Your task to perform on an android device: empty trash in google photos Image 0: 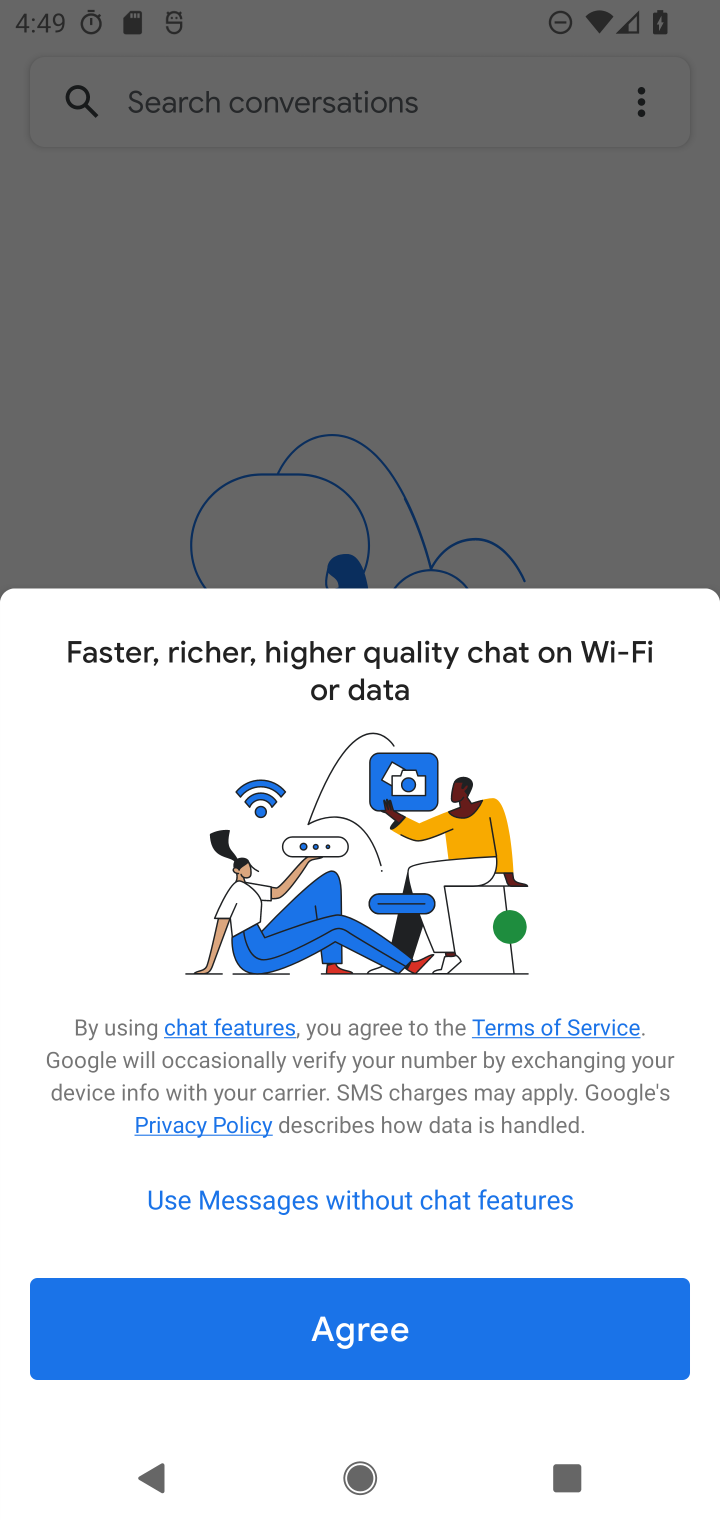
Step 0: press home button
Your task to perform on an android device: empty trash in google photos Image 1: 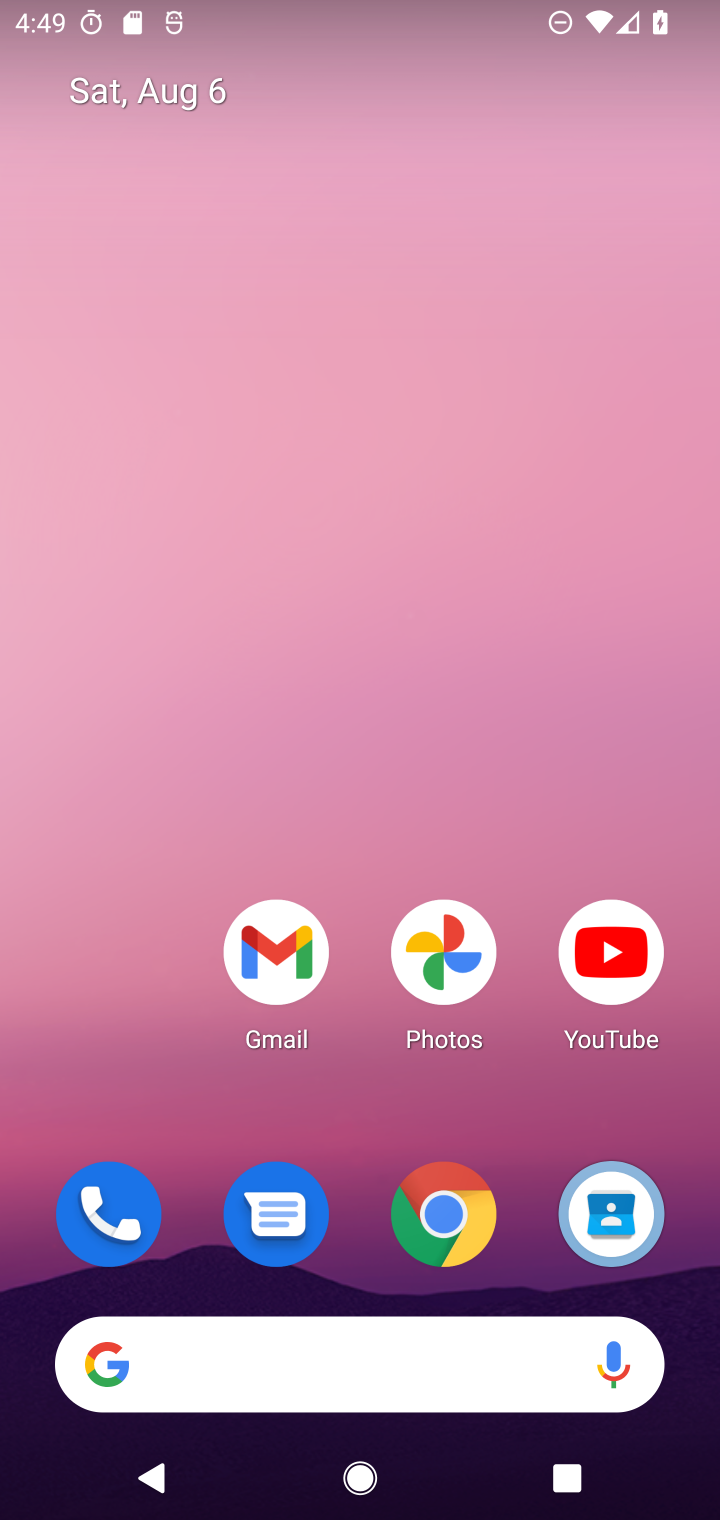
Step 1: drag from (361, 1228) to (378, 71)
Your task to perform on an android device: empty trash in google photos Image 2: 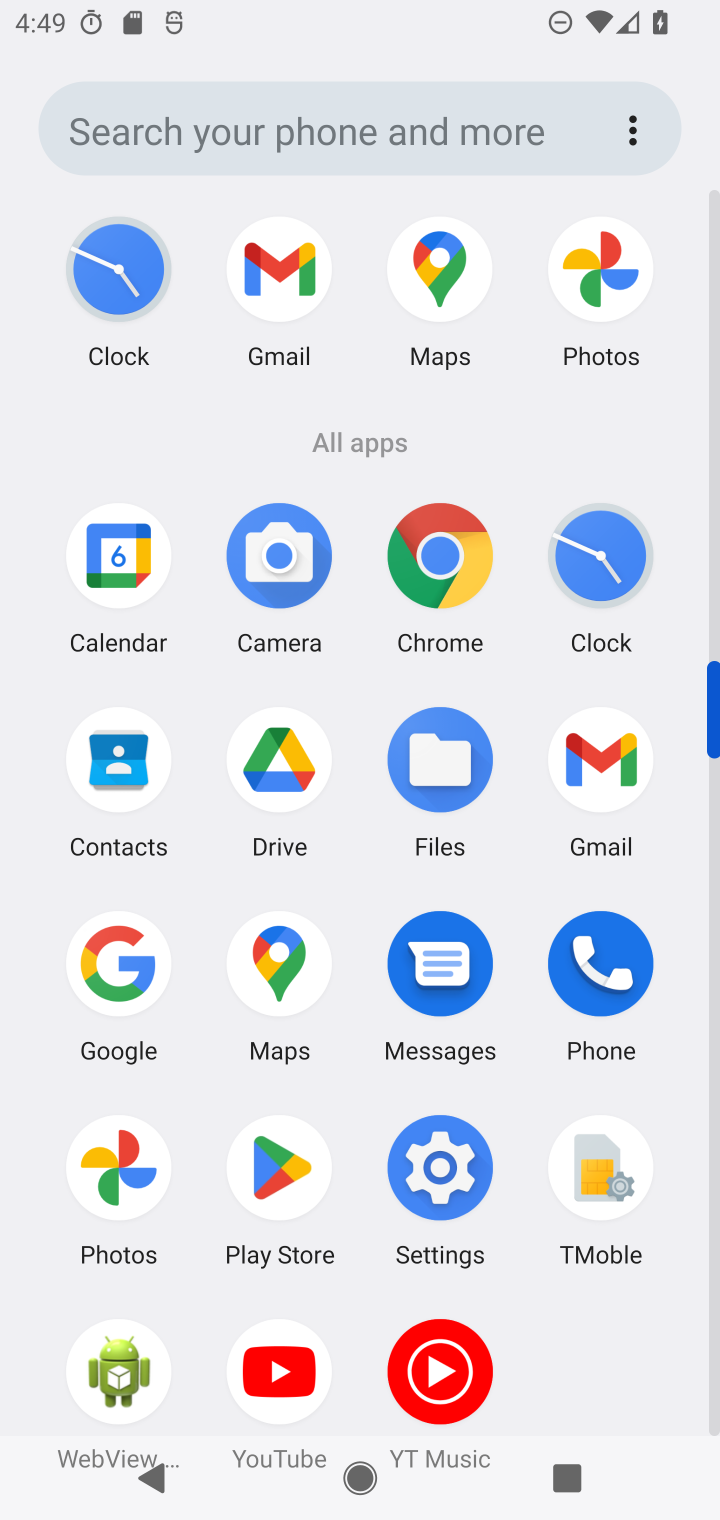
Step 2: click (113, 1209)
Your task to perform on an android device: empty trash in google photos Image 3: 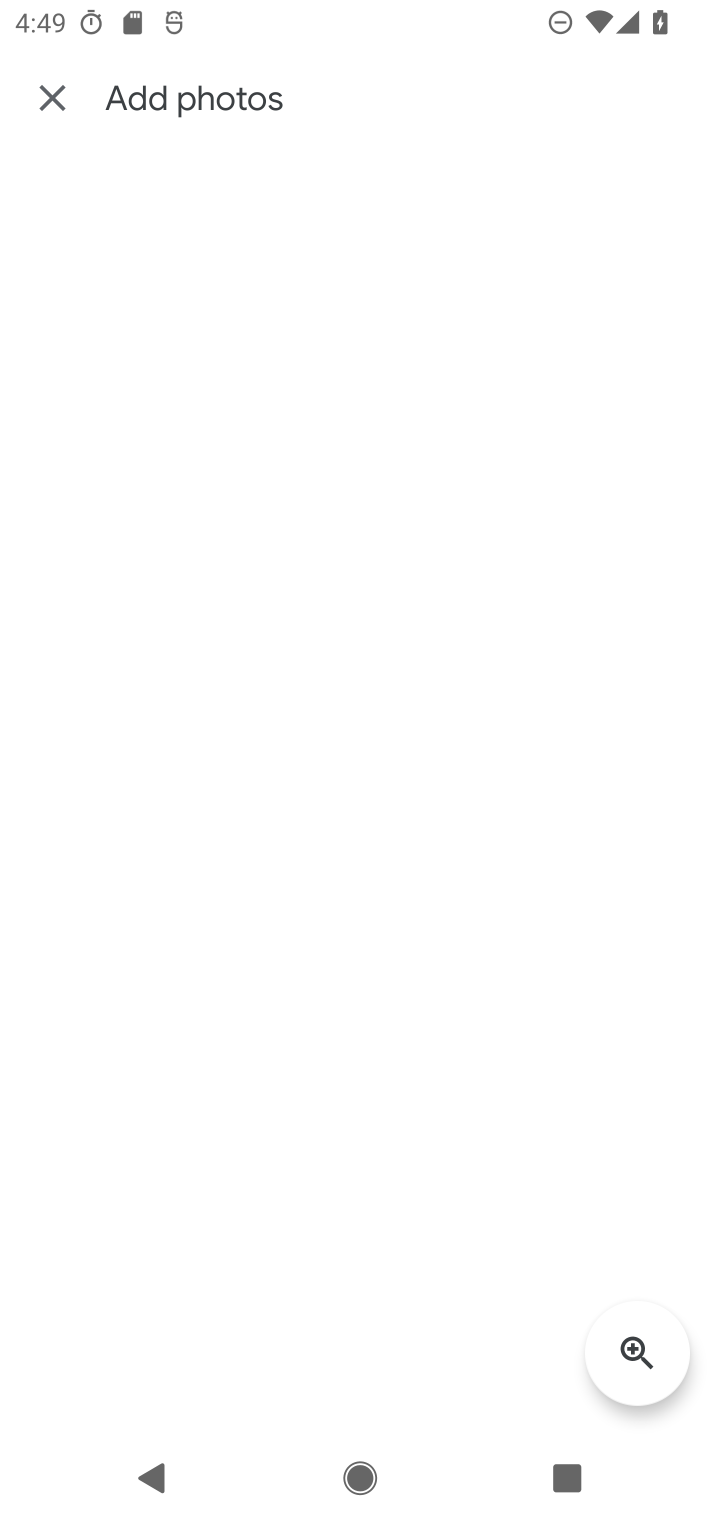
Step 3: click (67, 99)
Your task to perform on an android device: empty trash in google photos Image 4: 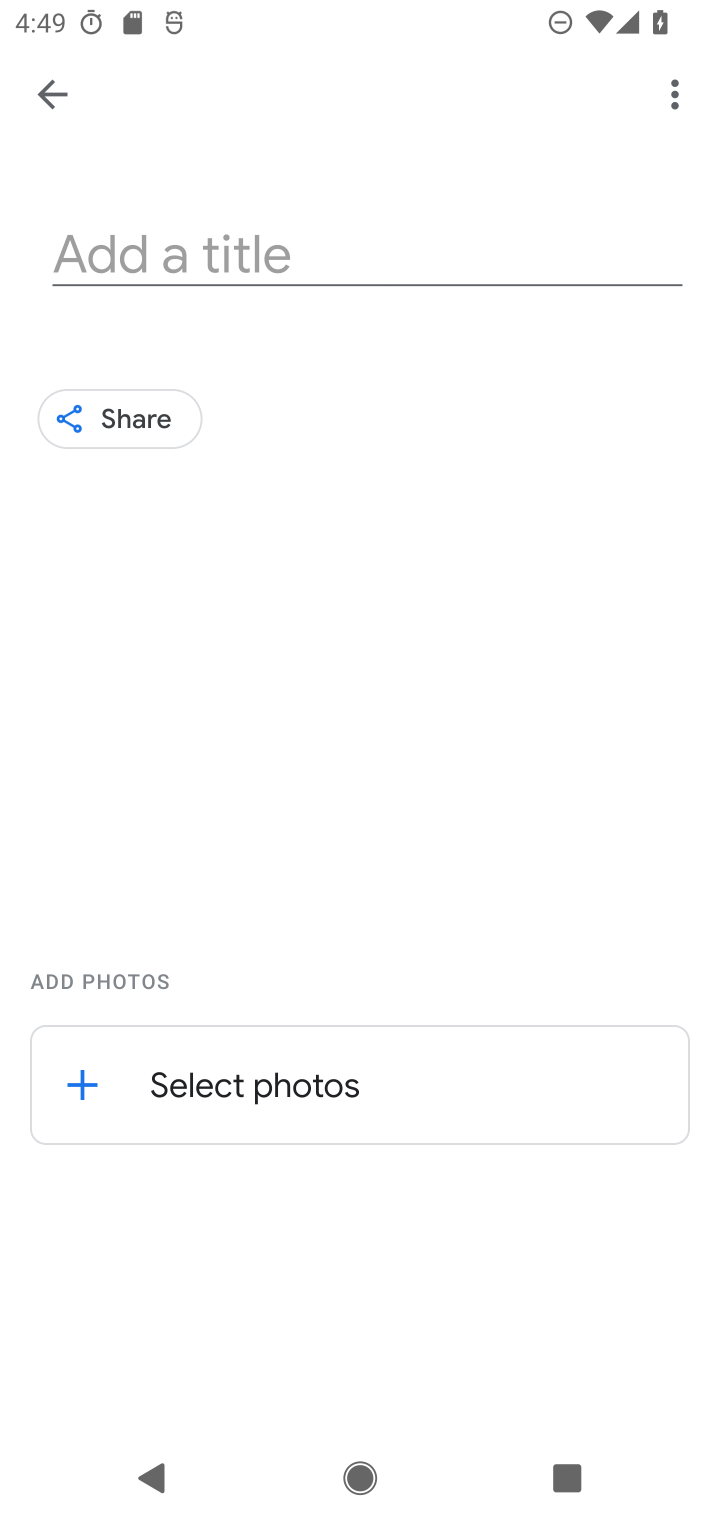
Step 4: click (41, 99)
Your task to perform on an android device: empty trash in google photos Image 5: 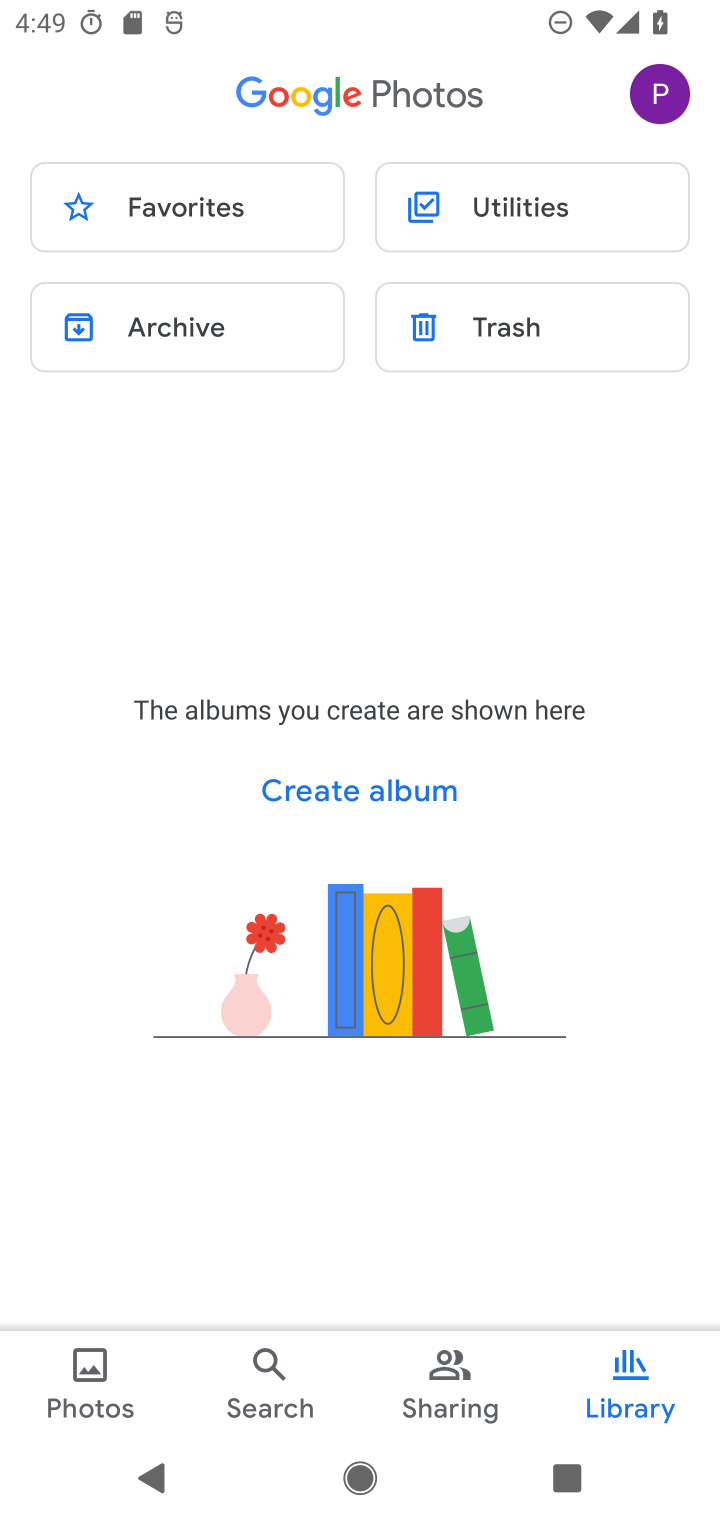
Step 5: click (554, 332)
Your task to perform on an android device: empty trash in google photos Image 6: 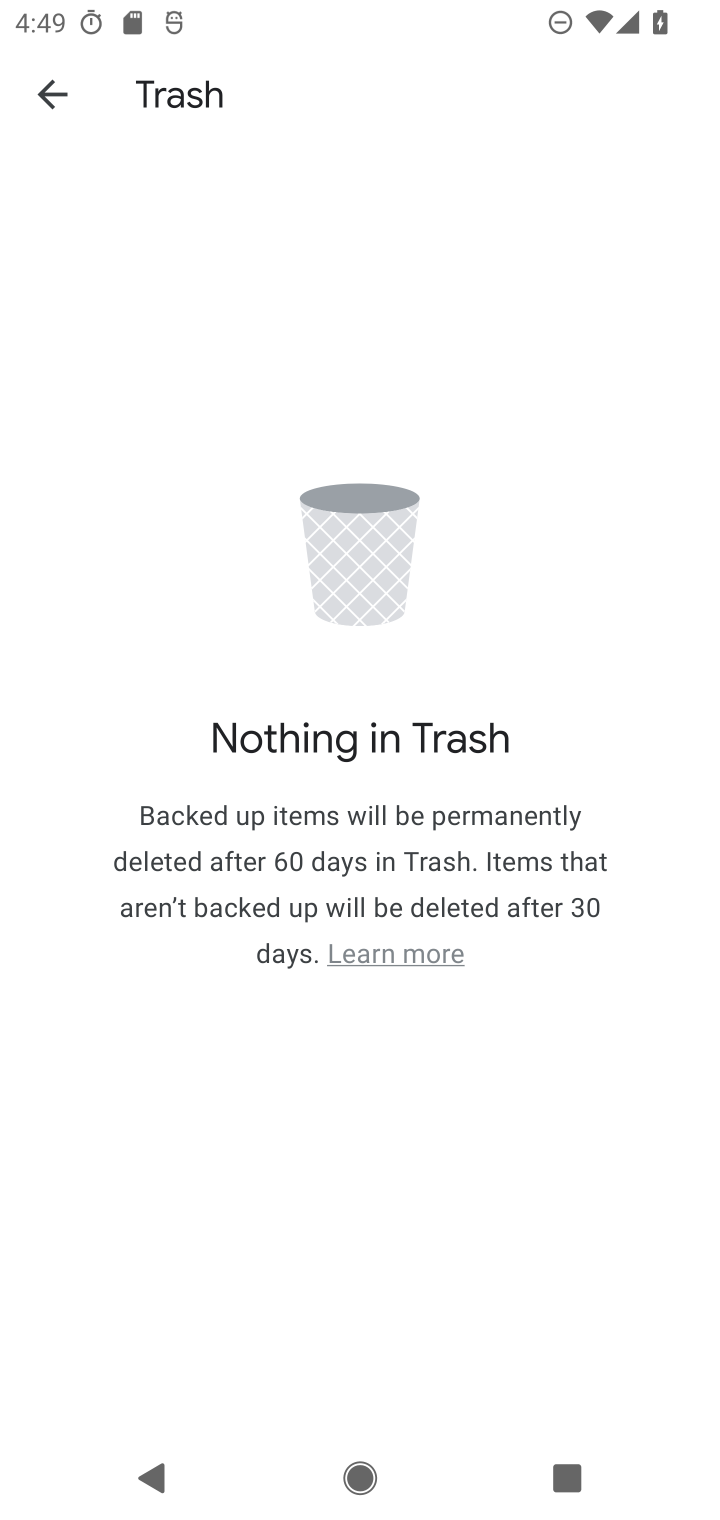
Step 6: task complete